Your task to perform on an android device: all mails in gmail Image 0: 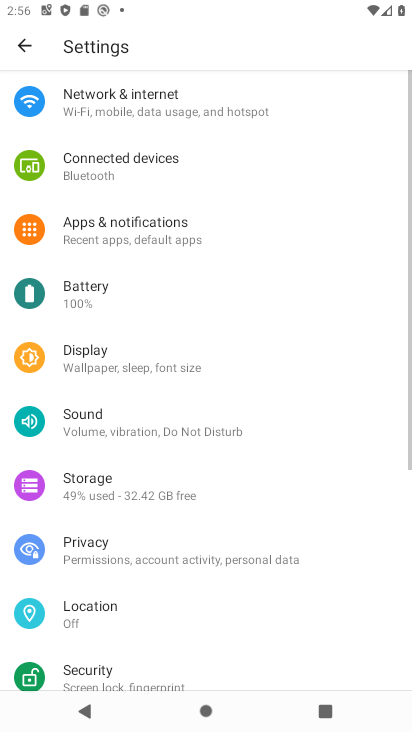
Step 0: press home button
Your task to perform on an android device: all mails in gmail Image 1: 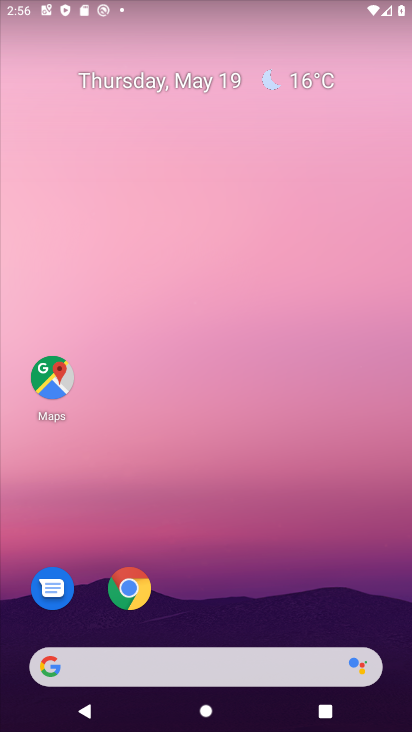
Step 1: drag from (240, 603) to (232, 145)
Your task to perform on an android device: all mails in gmail Image 2: 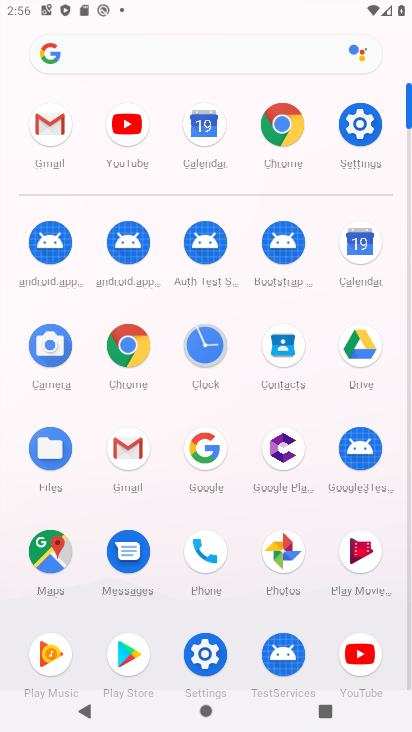
Step 2: click (57, 129)
Your task to perform on an android device: all mails in gmail Image 3: 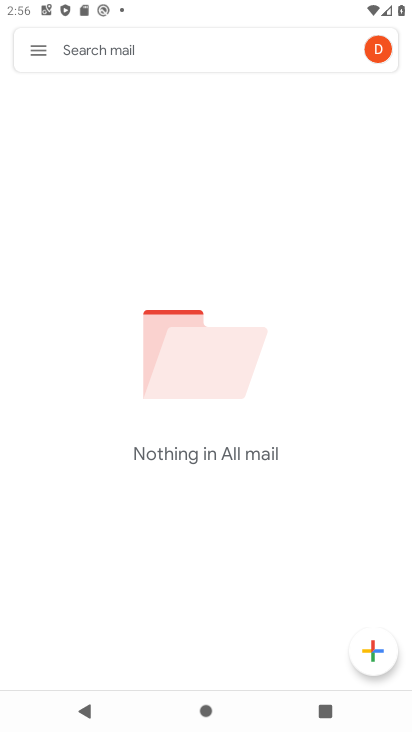
Step 3: task complete